Your task to perform on an android device: Check the news Image 0: 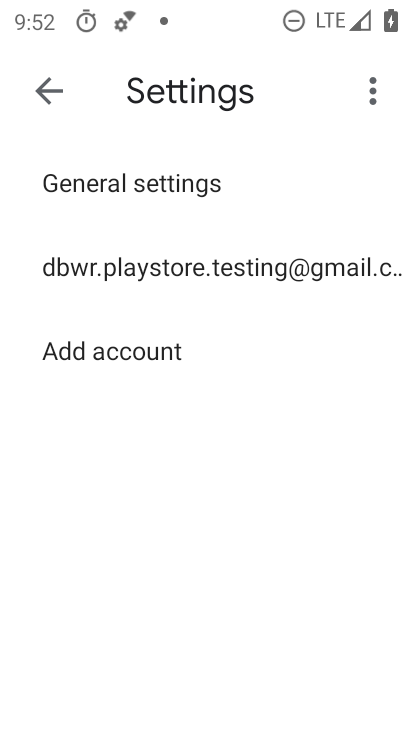
Step 0: press home button
Your task to perform on an android device: Check the news Image 1: 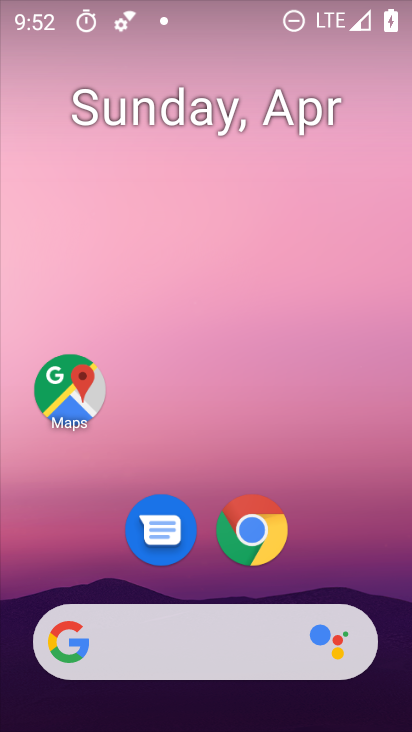
Step 1: task complete